Your task to perform on an android device: allow notifications from all sites in the chrome app Image 0: 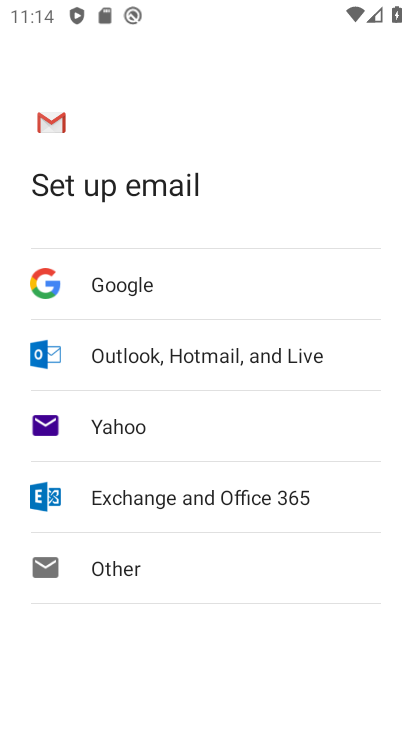
Step 0: press home button
Your task to perform on an android device: allow notifications from all sites in the chrome app Image 1: 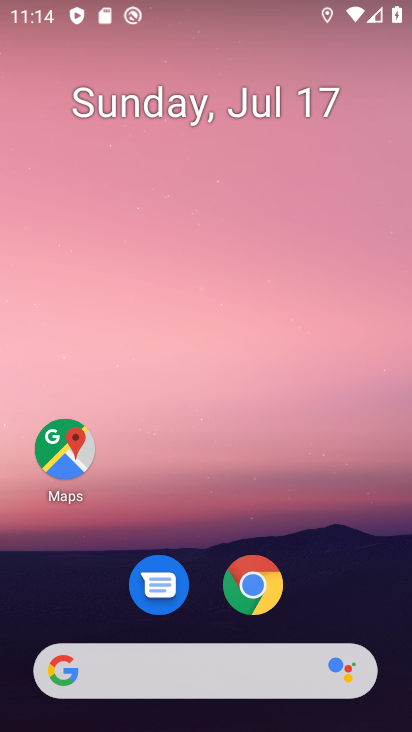
Step 1: click (255, 572)
Your task to perform on an android device: allow notifications from all sites in the chrome app Image 2: 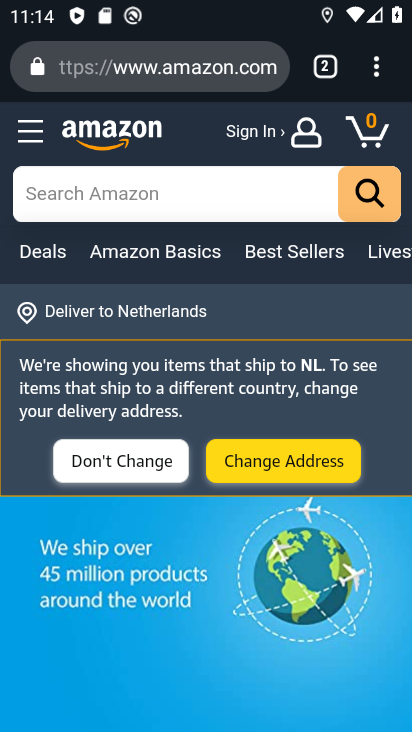
Step 2: click (379, 67)
Your task to perform on an android device: allow notifications from all sites in the chrome app Image 3: 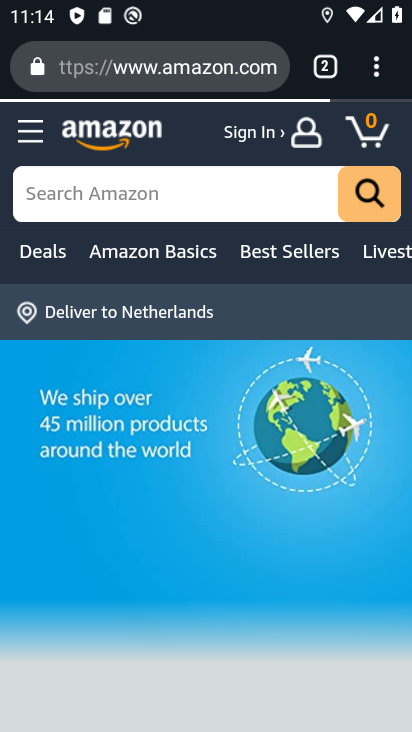
Step 3: click (379, 69)
Your task to perform on an android device: allow notifications from all sites in the chrome app Image 4: 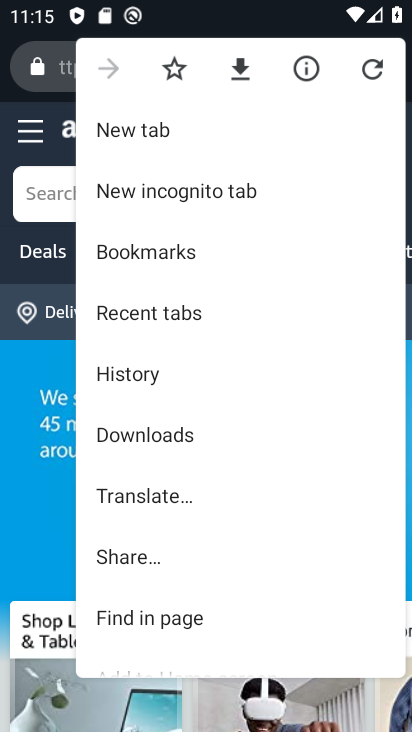
Step 4: drag from (178, 546) to (200, 231)
Your task to perform on an android device: allow notifications from all sites in the chrome app Image 5: 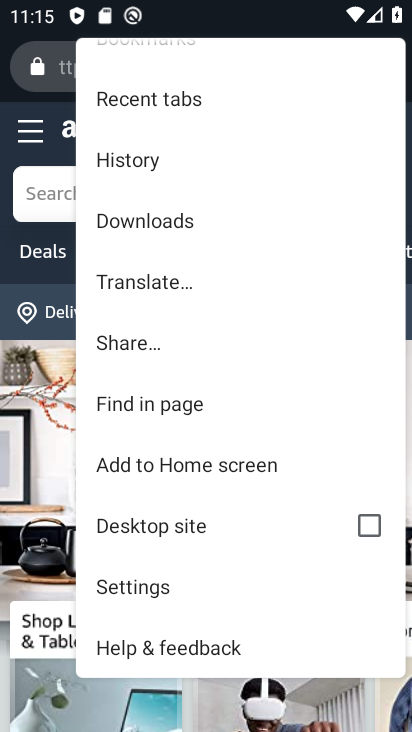
Step 5: click (156, 585)
Your task to perform on an android device: allow notifications from all sites in the chrome app Image 6: 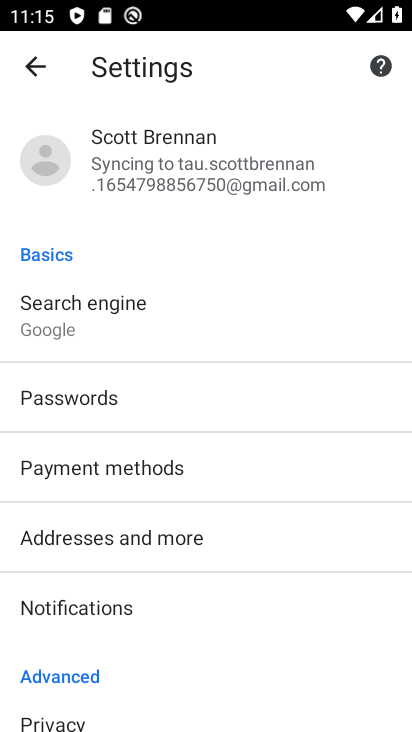
Step 6: drag from (293, 524) to (320, 276)
Your task to perform on an android device: allow notifications from all sites in the chrome app Image 7: 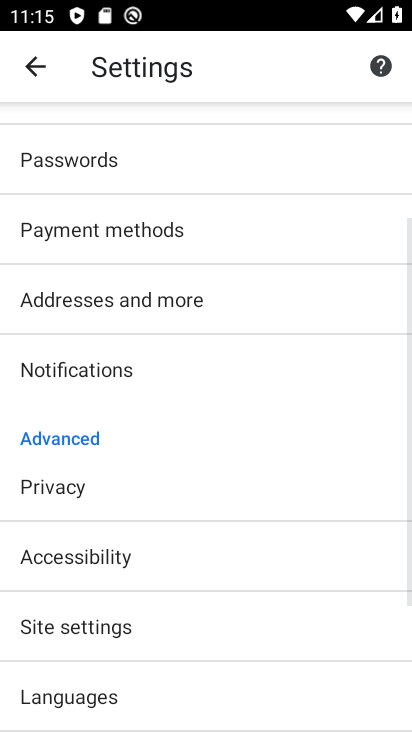
Step 7: click (231, 358)
Your task to perform on an android device: allow notifications from all sites in the chrome app Image 8: 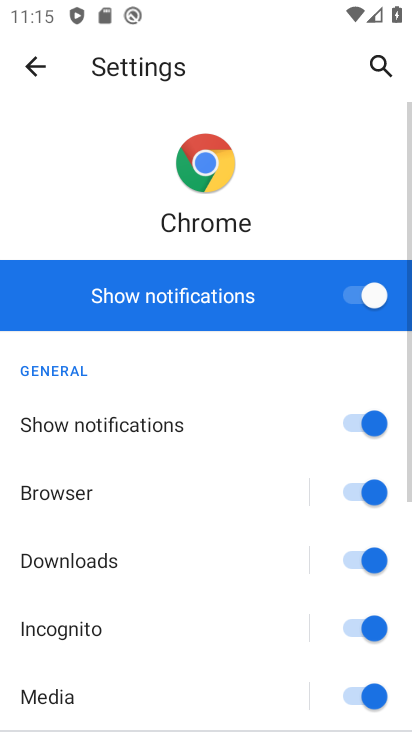
Step 8: task complete